Your task to perform on an android device: Open internet settings Image 0: 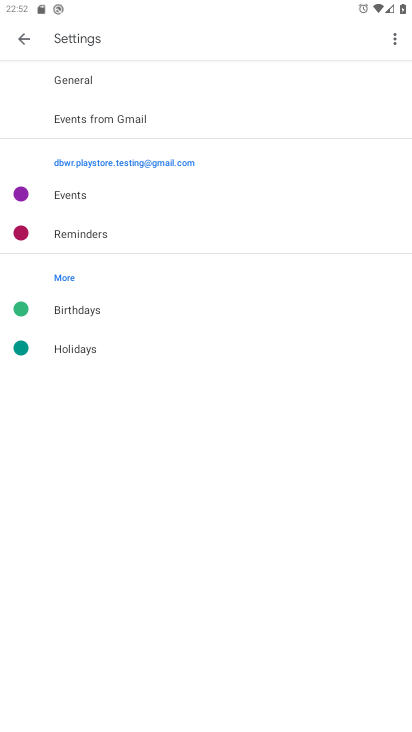
Step 0: press home button
Your task to perform on an android device: Open internet settings Image 1: 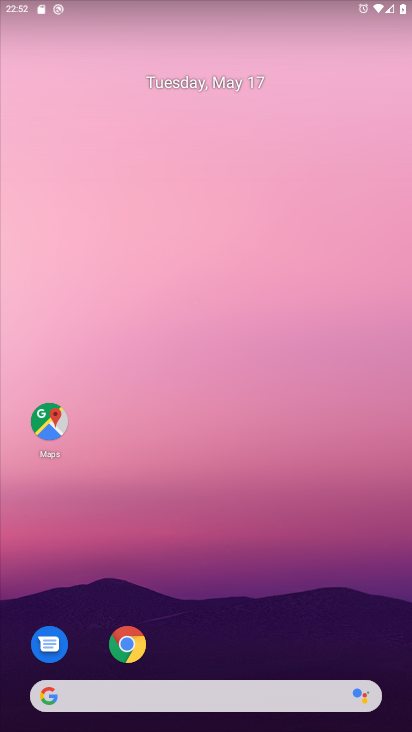
Step 1: drag from (228, 654) to (237, 417)
Your task to perform on an android device: Open internet settings Image 2: 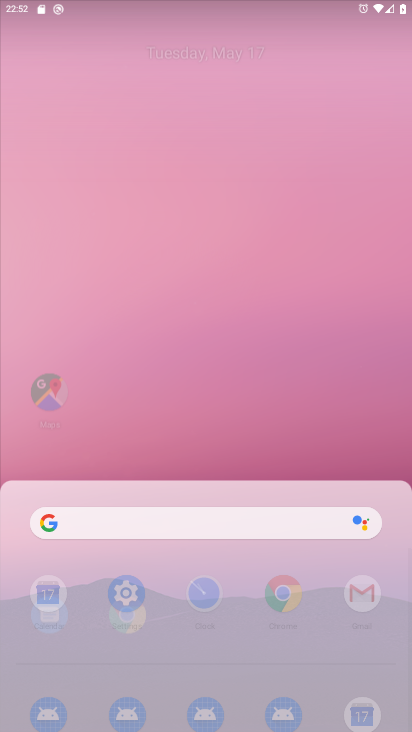
Step 2: click (247, 102)
Your task to perform on an android device: Open internet settings Image 3: 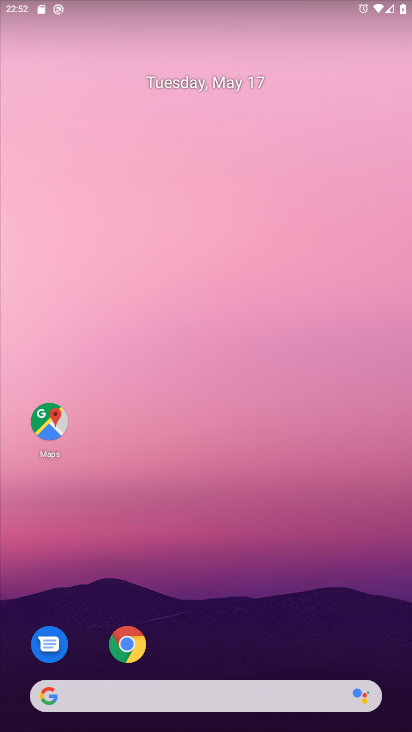
Step 3: drag from (218, 656) to (232, 93)
Your task to perform on an android device: Open internet settings Image 4: 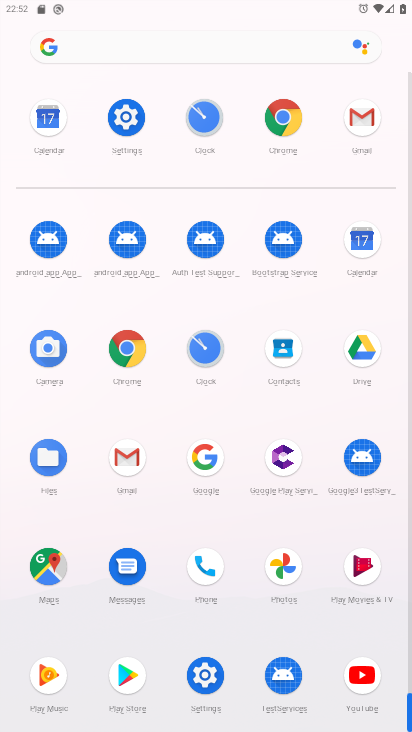
Step 4: click (122, 114)
Your task to perform on an android device: Open internet settings Image 5: 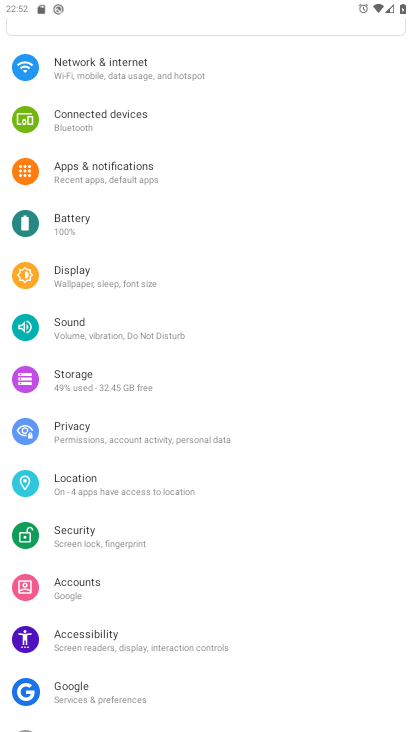
Step 5: click (136, 71)
Your task to perform on an android device: Open internet settings Image 6: 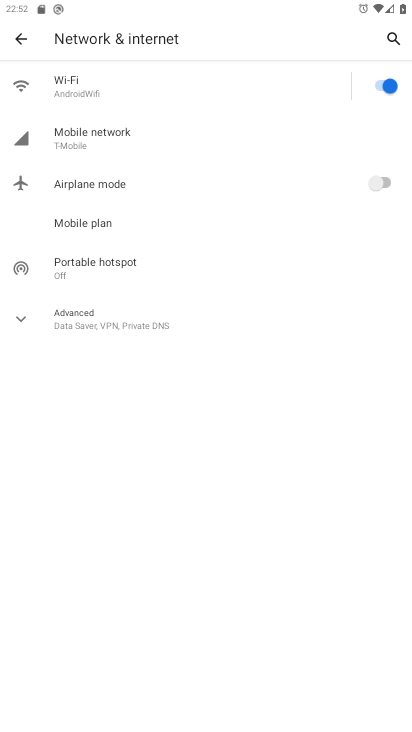
Step 6: click (42, 313)
Your task to perform on an android device: Open internet settings Image 7: 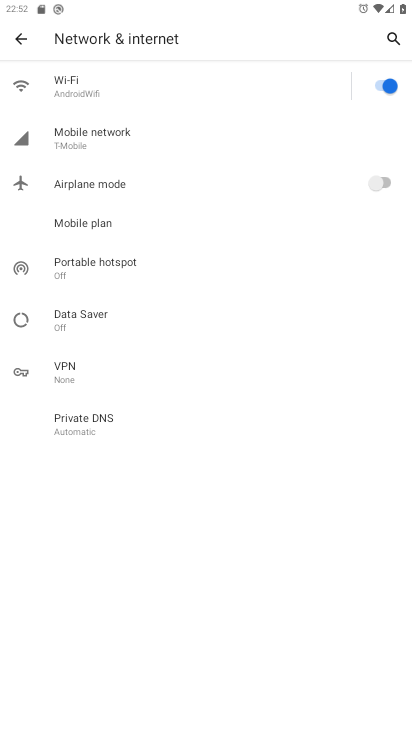
Step 7: task complete